Your task to perform on an android device: Do I have any events today? Image 0: 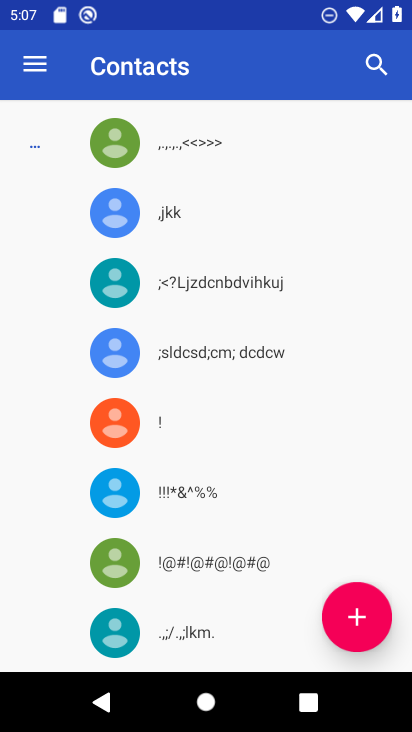
Step 0: press home button
Your task to perform on an android device: Do I have any events today? Image 1: 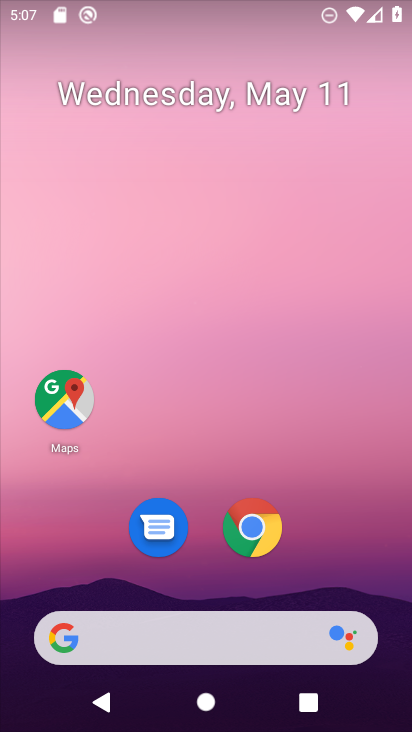
Step 1: drag from (320, 521) to (326, 98)
Your task to perform on an android device: Do I have any events today? Image 2: 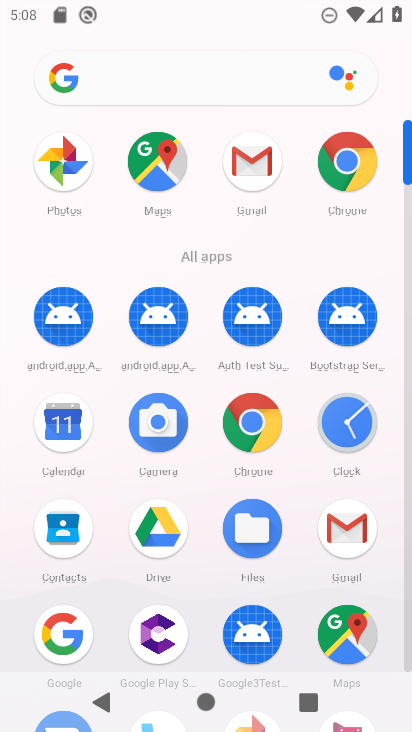
Step 2: click (75, 438)
Your task to perform on an android device: Do I have any events today? Image 3: 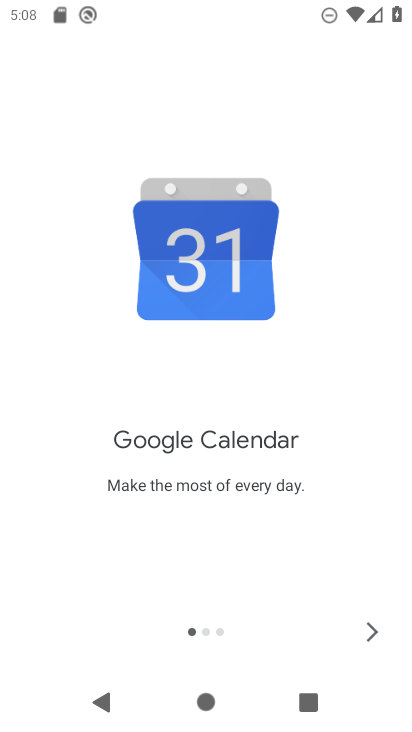
Step 3: click (373, 642)
Your task to perform on an android device: Do I have any events today? Image 4: 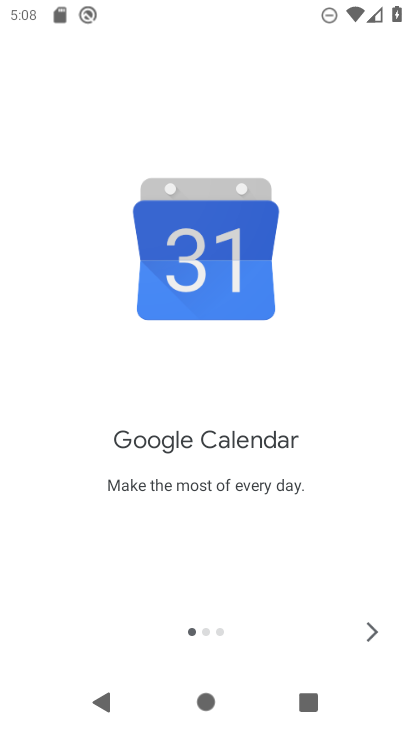
Step 4: click (373, 642)
Your task to perform on an android device: Do I have any events today? Image 5: 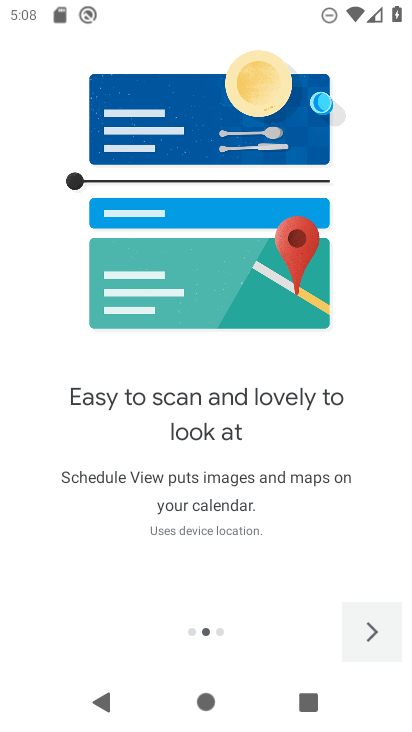
Step 5: click (373, 642)
Your task to perform on an android device: Do I have any events today? Image 6: 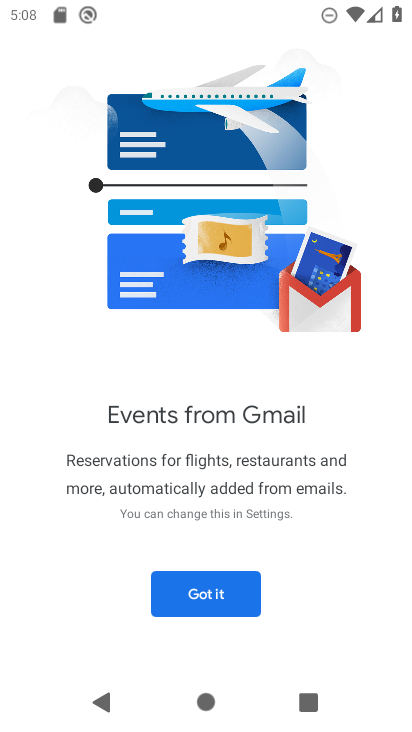
Step 6: click (373, 642)
Your task to perform on an android device: Do I have any events today? Image 7: 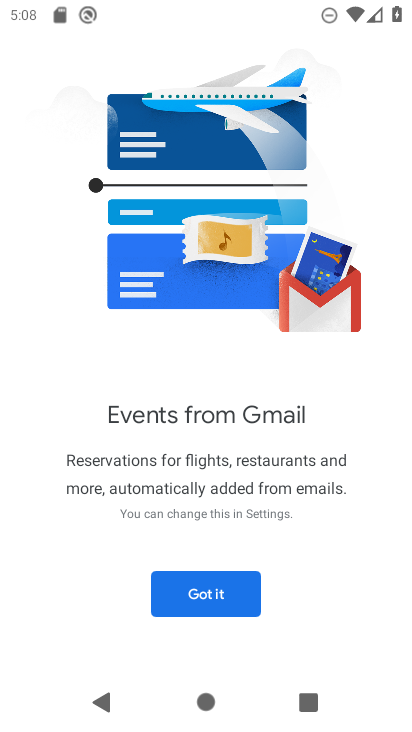
Step 7: click (373, 642)
Your task to perform on an android device: Do I have any events today? Image 8: 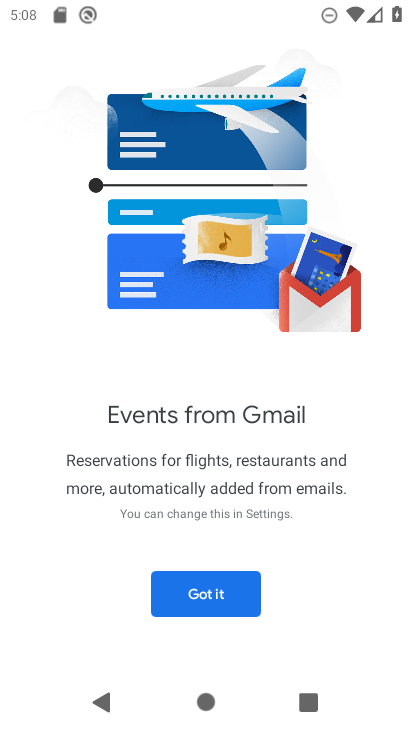
Step 8: click (214, 587)
Your task to perform on an android device: Do I have any events today? Image 9: 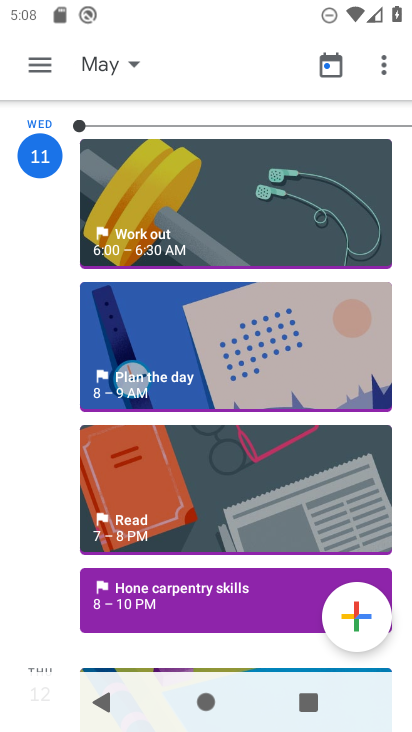
Step 9: click (114, 76)
Your task to perform on an android device: Do I have any events today? Image 10: 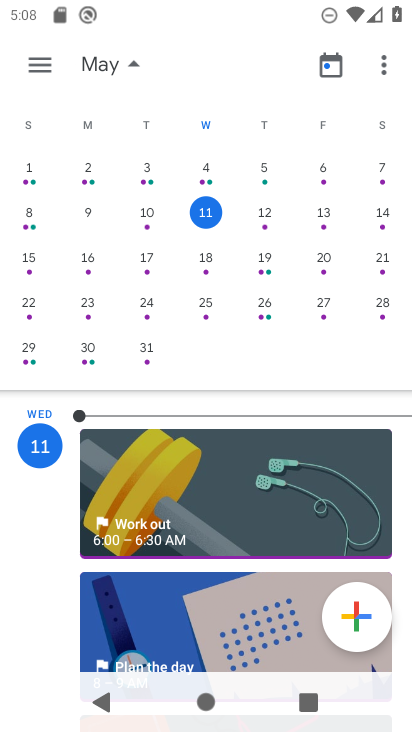
Step 10: click (99, 59)
Your task to perform on an android device: Do I have any events today? Image 11: 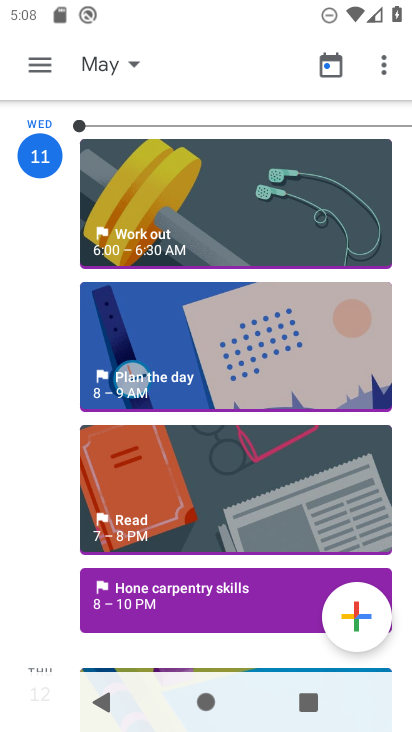
Step 11: task complete